Your task to perform on an android device: Open location settings Image 0: 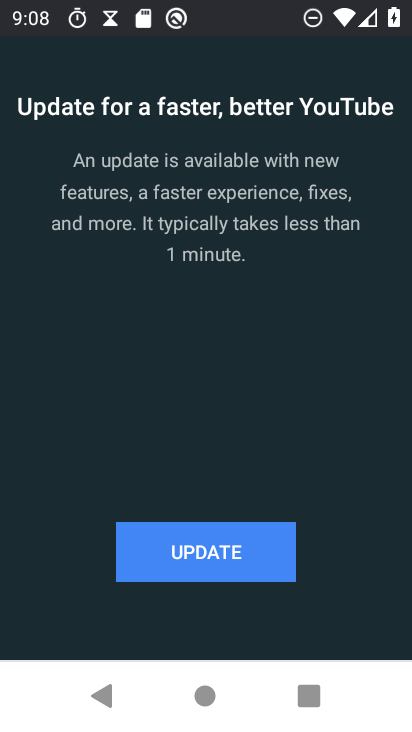
Step 0: press home button
Your task to perform on an android device: Open location settings Image 1: 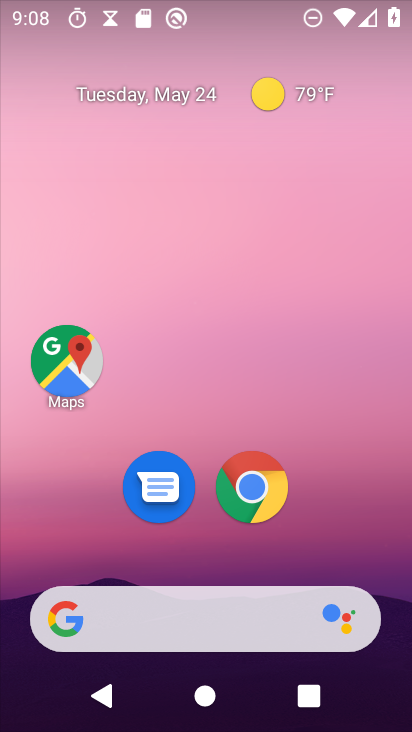
Step 1: drag from (52, 502) to (228, 120)
Your task to perform on an android device: Open location settings Image 2: 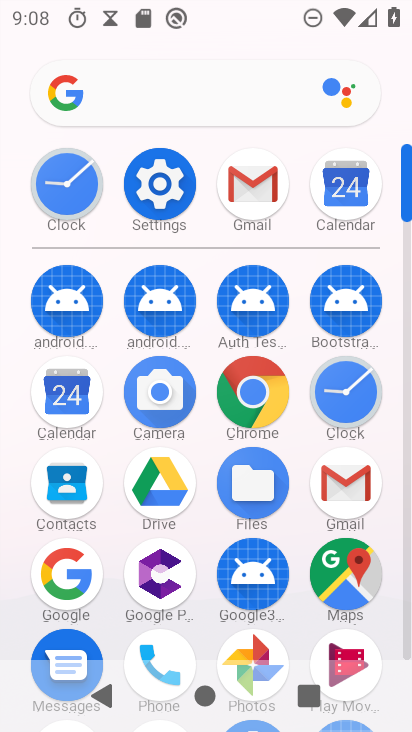
Step 2: click (162, 167)
Your task to perform on an android device: Open location settings Image 3: 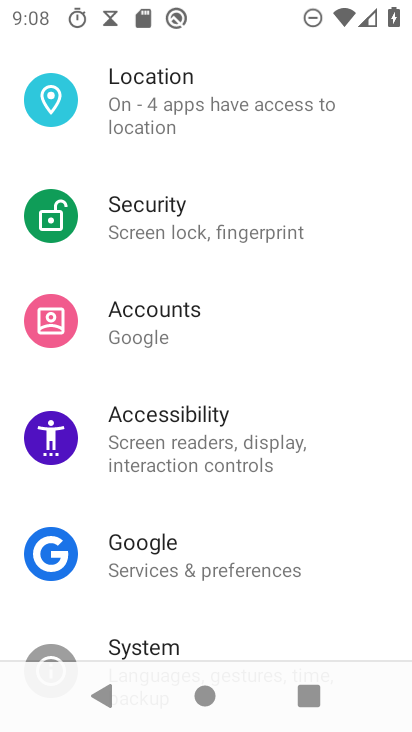
Step 3: click (76, 113)
Your task to perform on an android device: Open location settings Image 4: 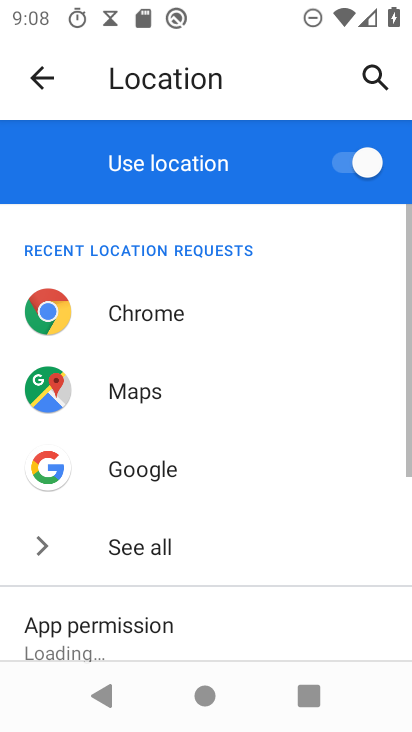
Step 4: click (369, 158)
Your task to perform on an android device: Open location settings Image 5: 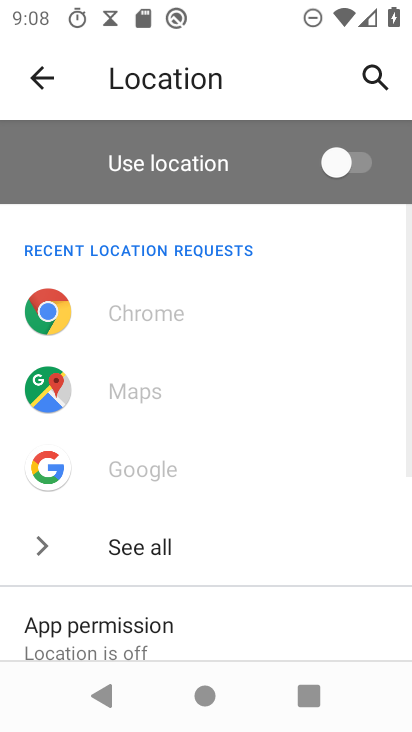
Step 5: task complete